Your task to perform on an android device: Open calendar and show me the fourth week of next month Image 0: 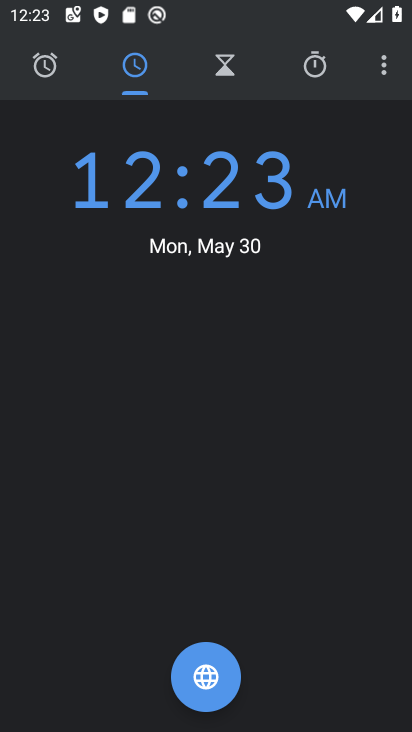
Step 0: press home button
Your task to perform on an android device: Open calendar and show me the fourth week of next month Image 1: 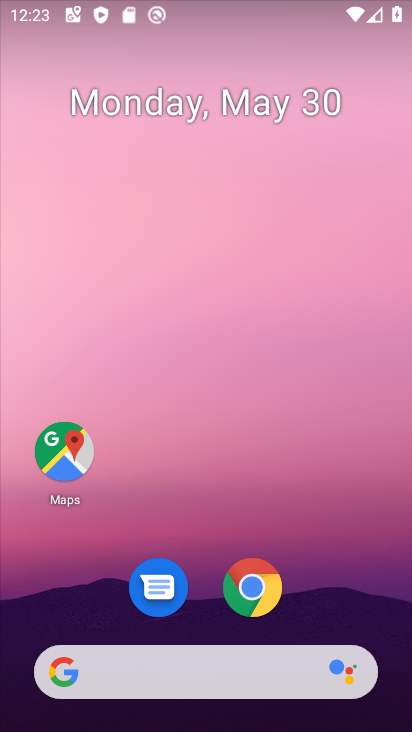
Step 1: drag from (113, 731) to (208, 72)
Your task to perform on an android device: Open calendar and show me the fourth week of next month Image 2: 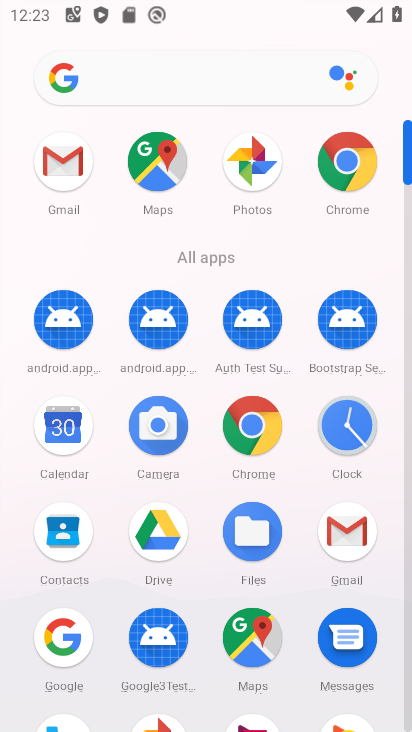
Step 2: click (55, 434)
Your task to perform on an android device: Open calendar and show me the fourth week of next month Image 3: 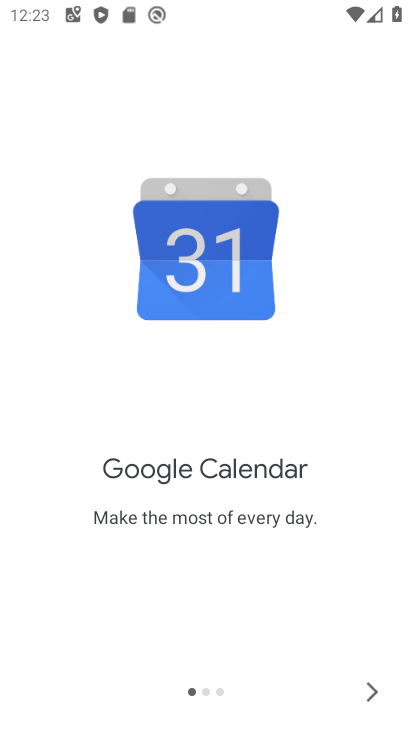
Step 3: click (368, 686)
Your task to perform on an android device: Open calendar and show me the fourth week of next month Image 4: 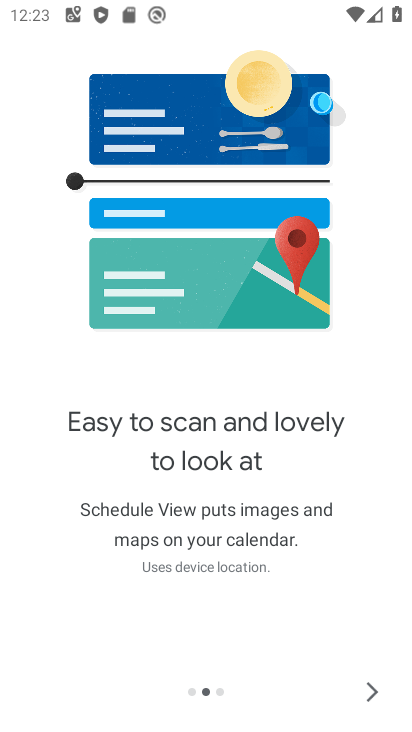
Step 4: click (357, 689)
Your task to perform on an android device: Open calendar and show me the fourth week of next month Image 5: 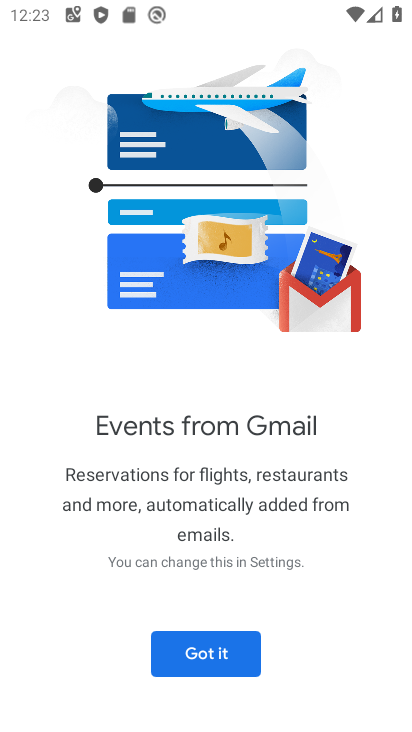
Step 5: click (221, 670)
Your task to perform on an android device: Open calendar and show me the fourth week of next month Image 6: 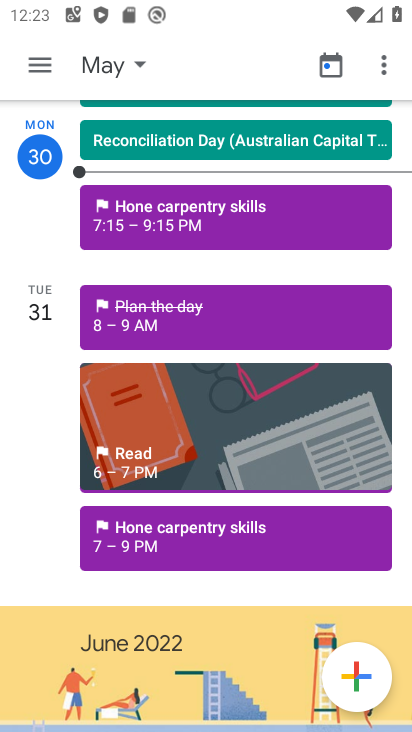
Step 6: click (133, 66)
Your task to perform on an android device: Open calendar and show me the fourth week of next month Image 7: 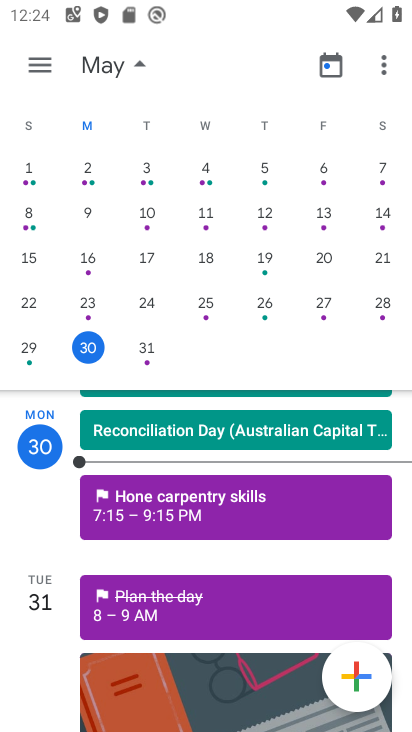
Step 7: drag from (384, 341) to (0, 303)
Your task to perform on an android device: Open calendar and show me the fourth week of next month Image 8: 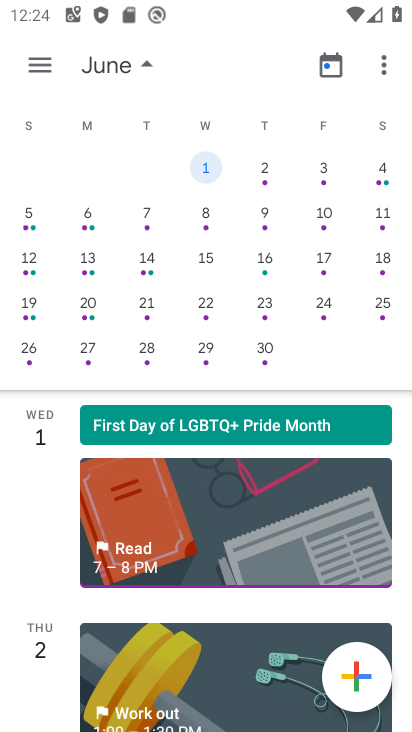
Step 8: click (144, 61)
Your task to perform on an android device: Open calendar and show me the fourth week of next month Image 9: 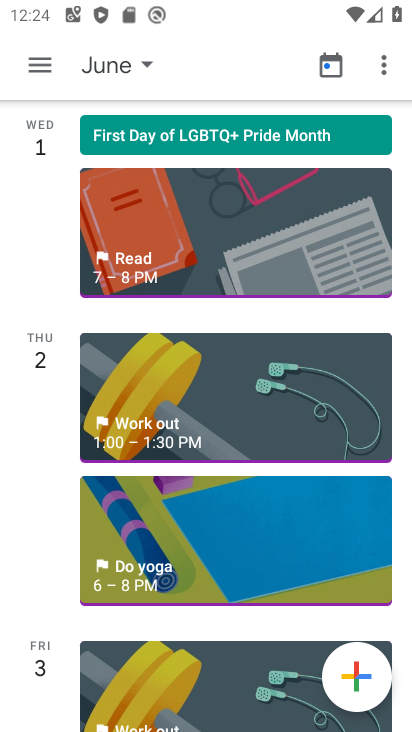
Step 9: click (41, 61)
Your task to perform on an android device: Open calendar and show me the fourth week of next month Image 10: 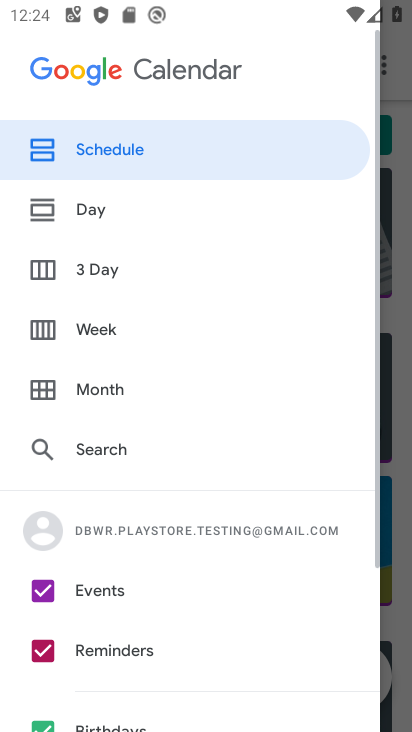
Step 10: click (76, 327)
Your task to perform on an android device: Open calendar and show me the fourth week of next month Image 11: 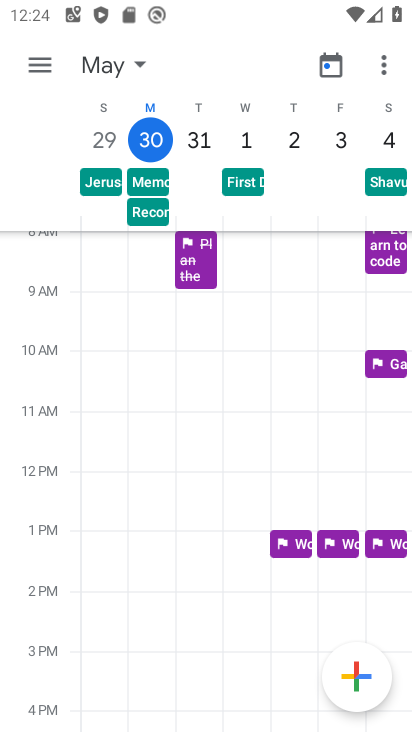
Step 11: task complete